Your task to perform on an android device: Open battery settings Image 0: 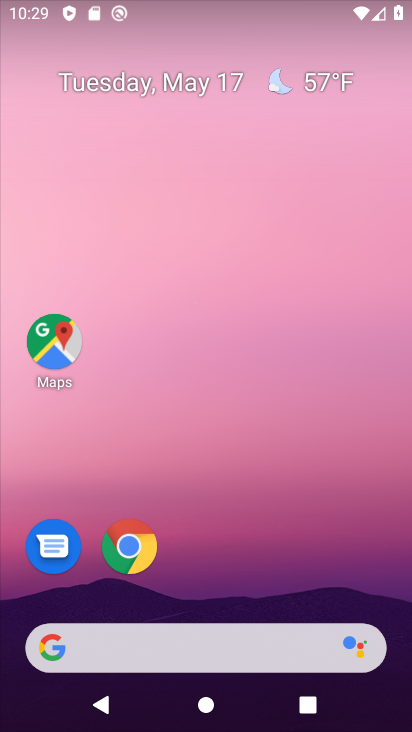
Step 0: drag from (272, 566) to (309, 161)
Your task to perform on an android device: Open battery settings Image 1: 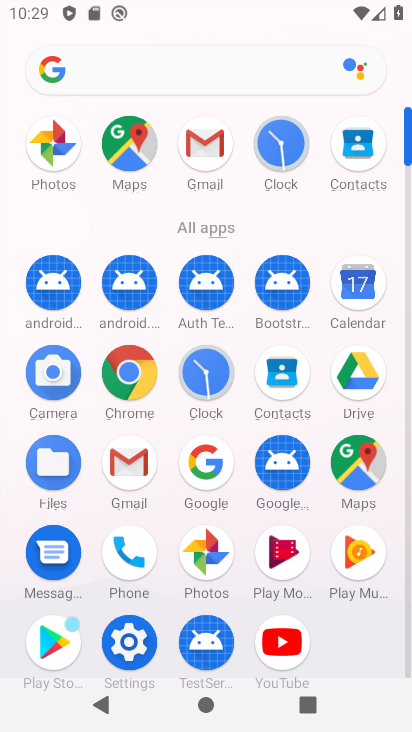
Step 1: click (120, 656)
Your task to perform on an android device: Open battery settings Image 2: 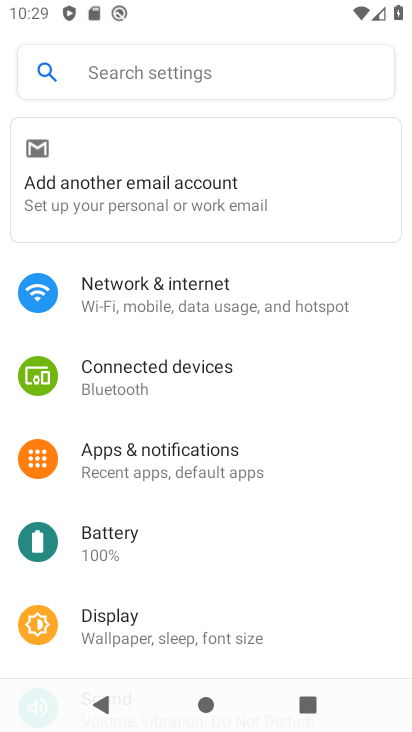
Step 2: click (149, 536)
Your task to perform on an android device: Open battery settings Image 3: 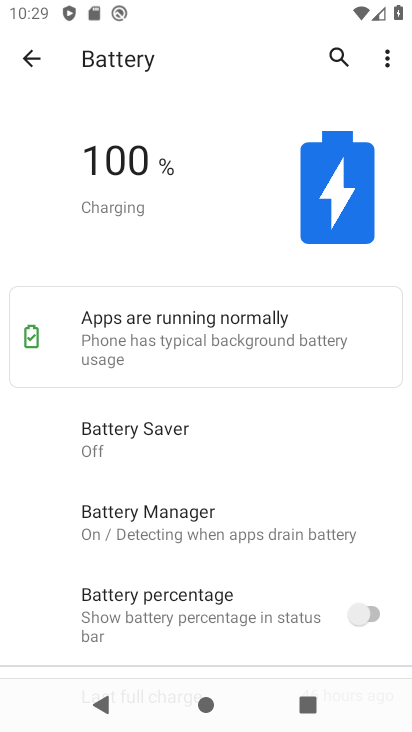
Step 3: task complete